Your task to perform on an android device: install app "Pluto TV - Live TV and Movies" Image 0: 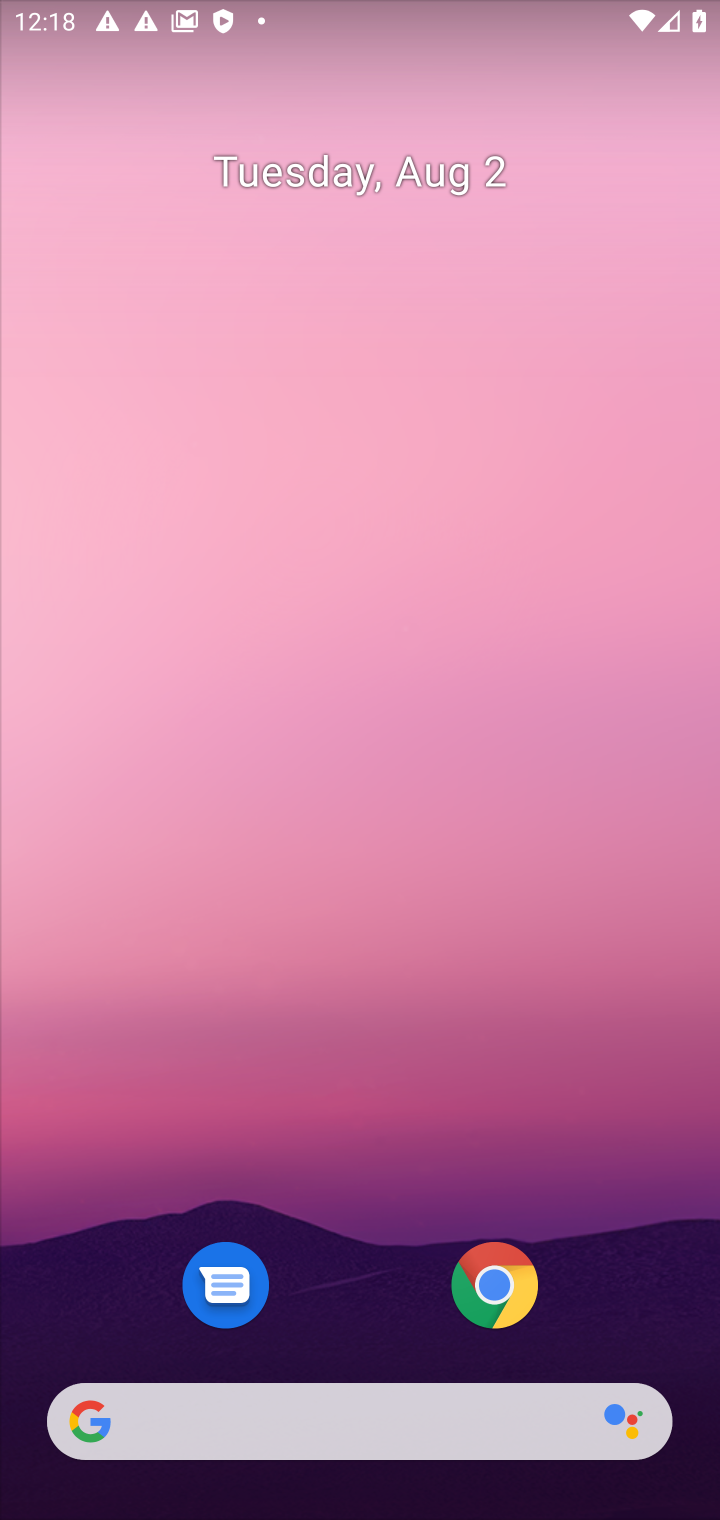
Step 0: drag from (612, 1224) to (628, 299)
Your task to perform on an android device: install app "Pluto TV - Live TV and Movies" Image 1: 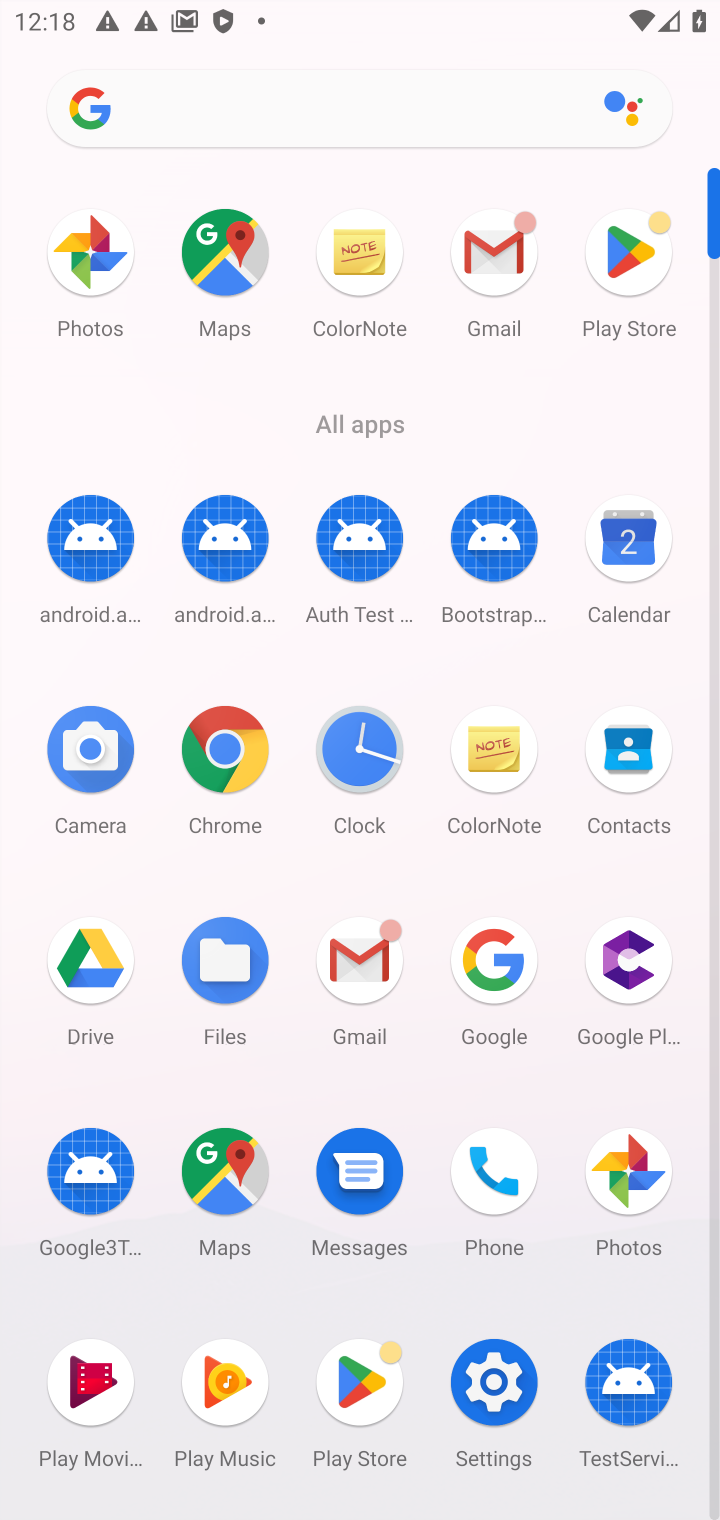
Step 1: click (353, 1385)
Your task to perform on an android device: install app "Pluto TV - Live TV and Movies" Image 2: 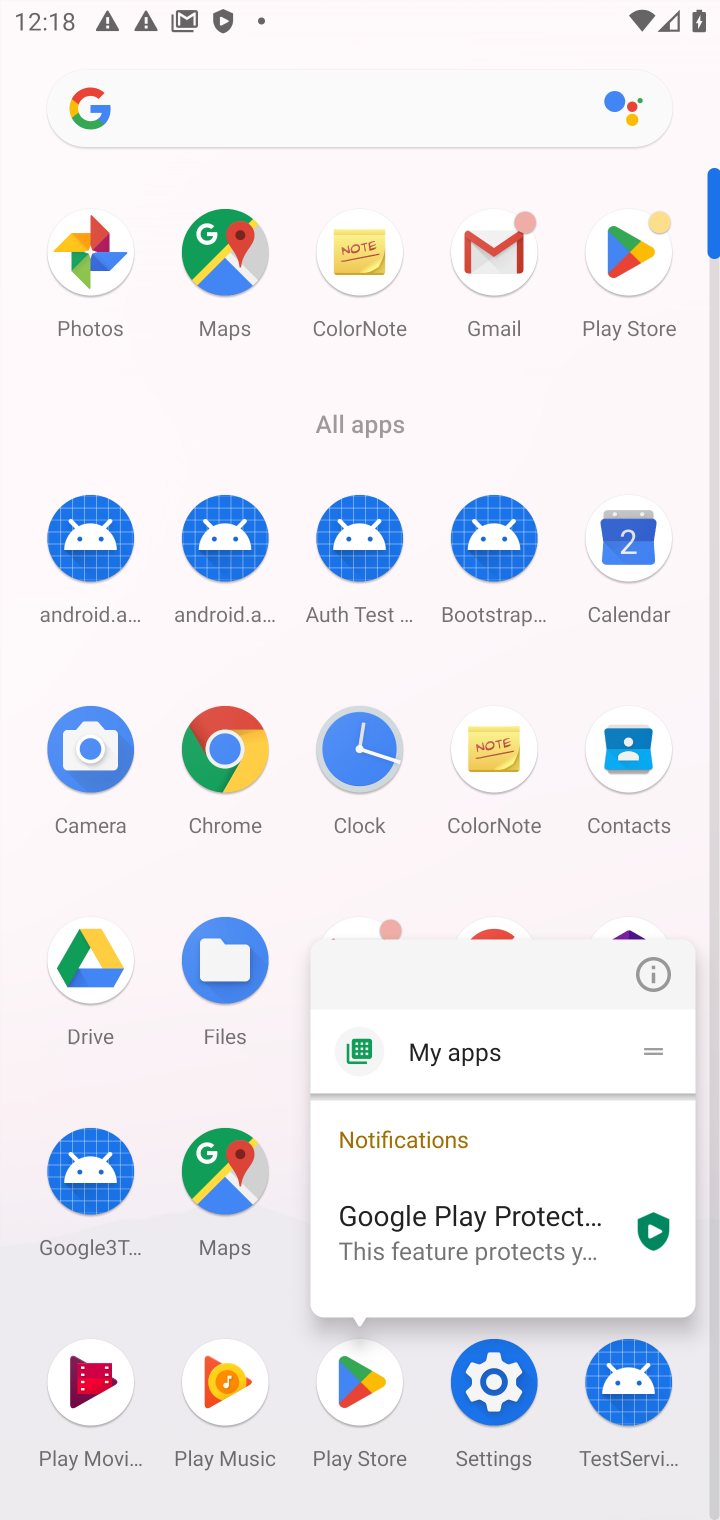
Step 2: click (351, 1377)
Your task to perform on an android device: install app "Pluto TV - Live TV and Movies" Image 3: 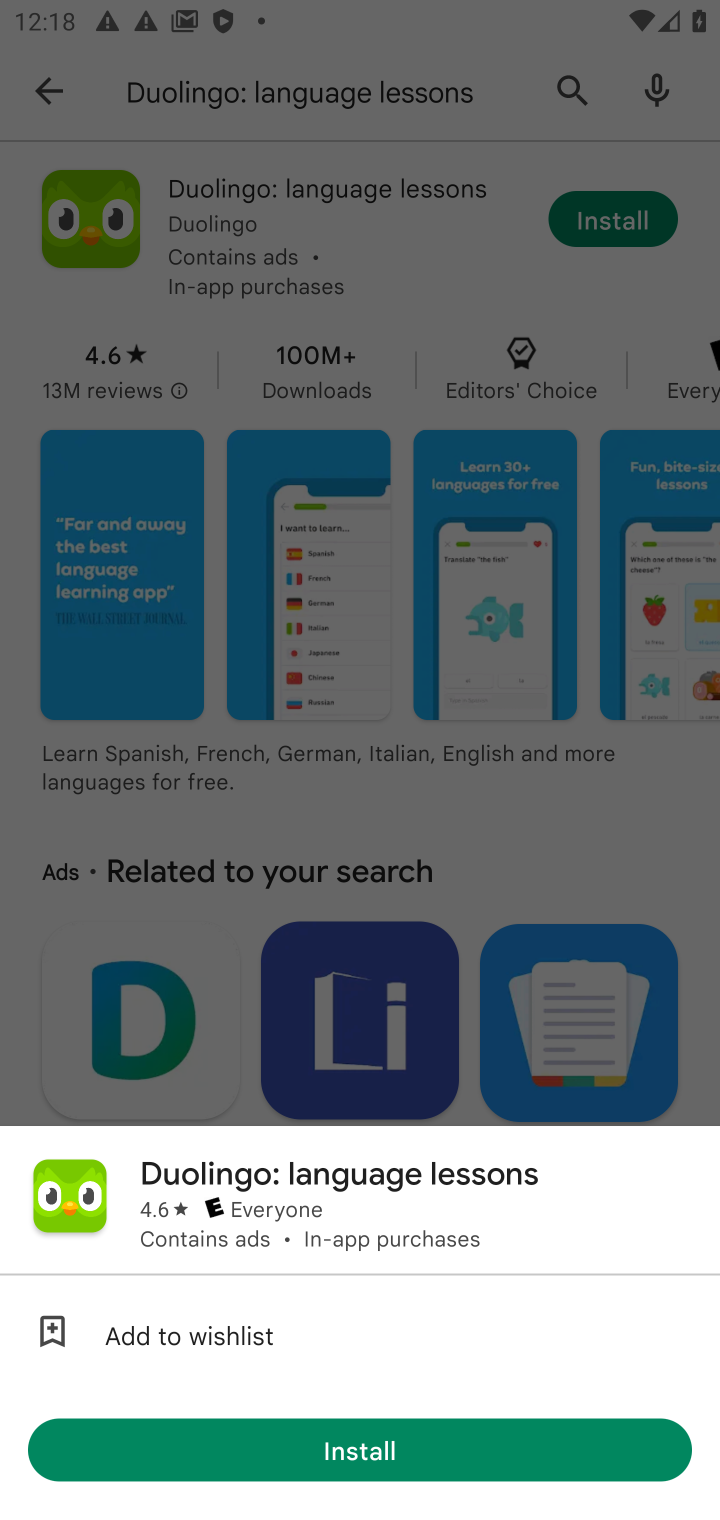
Step 3: click (382, 464)
Your task to perform on an android device: install app "Pluto TV - Live TV and Movies" Image 4: 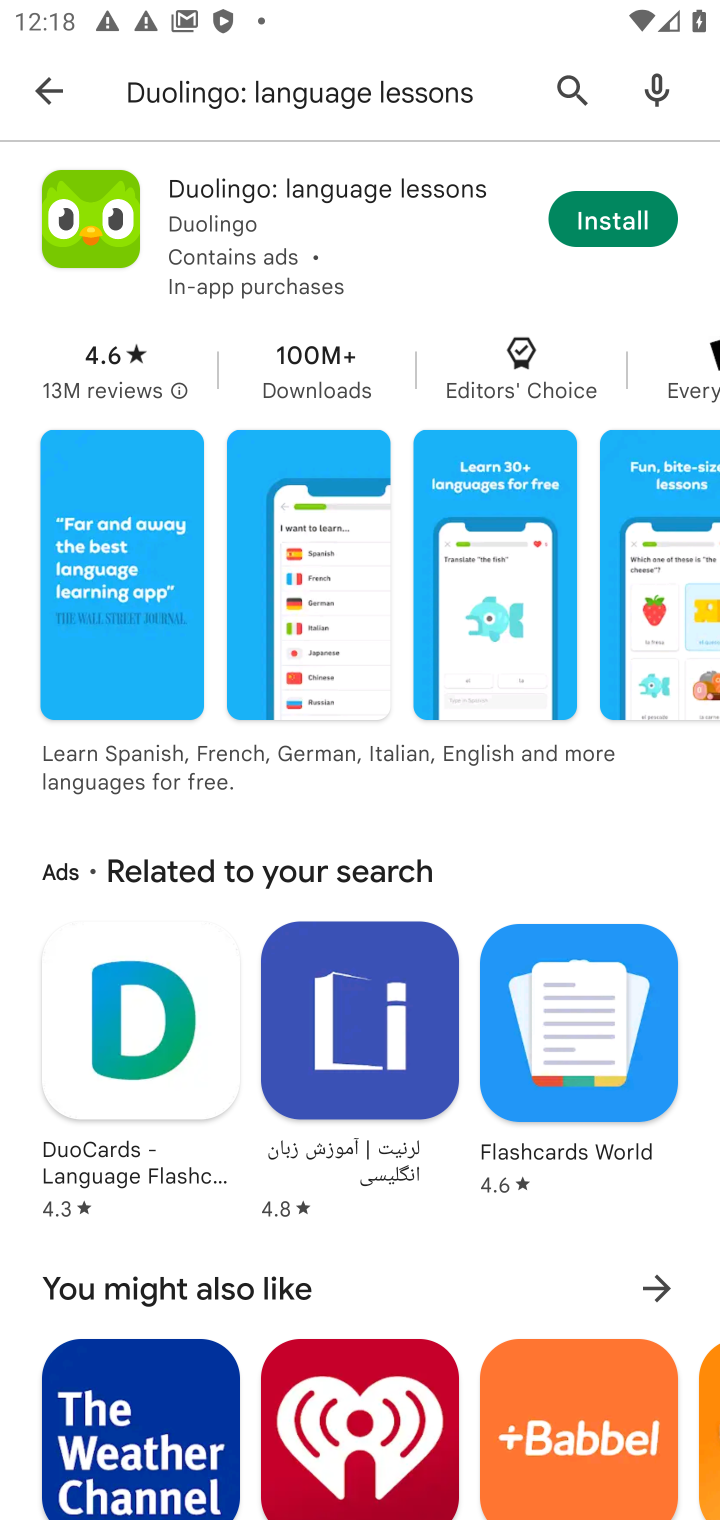
Step 4: click (401, 80)
Your task to perform on an android device: install app "Pluto TV - Live TV and Movies" Image 5: 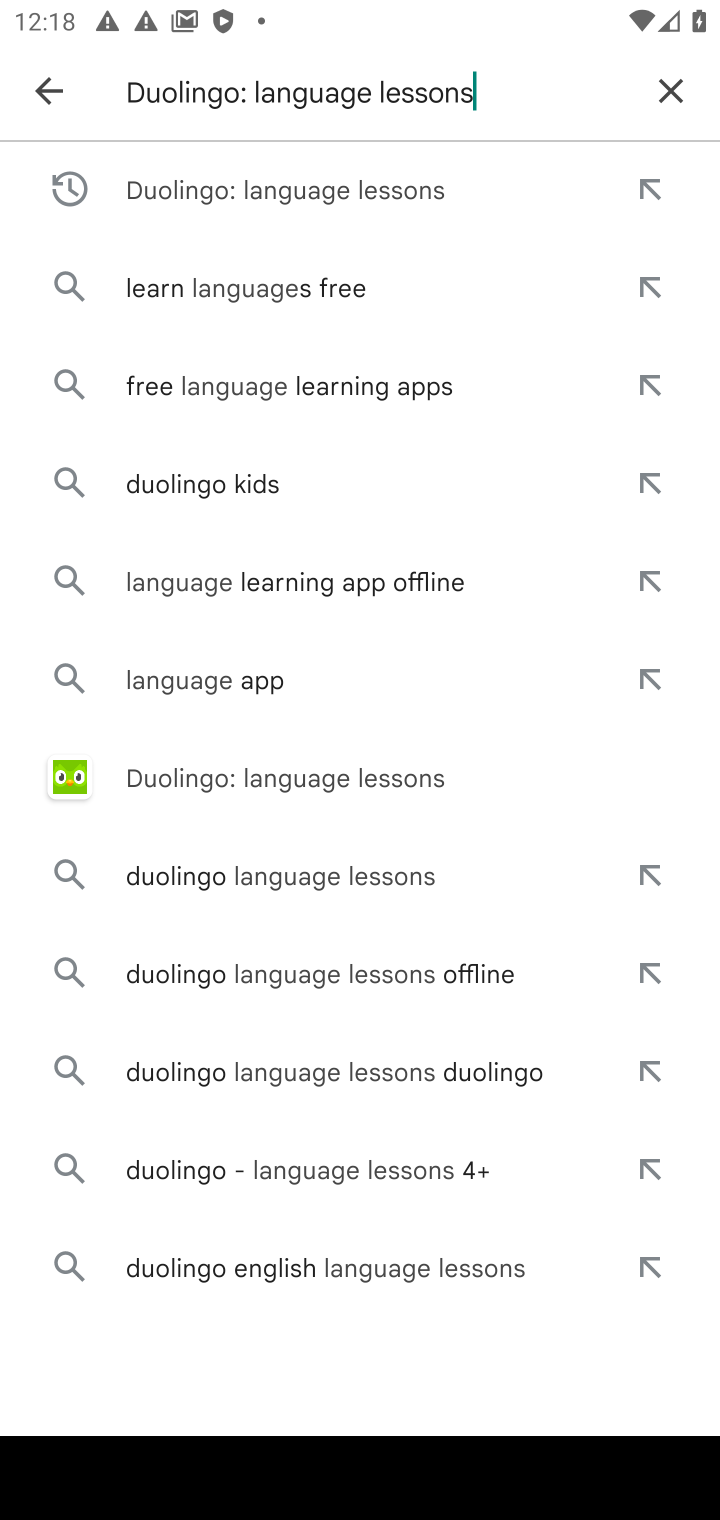
Step 5: click (679, 93)
Your task to perform on an android device: install app "Pluto TV - Live TV and Movies" Image 6: 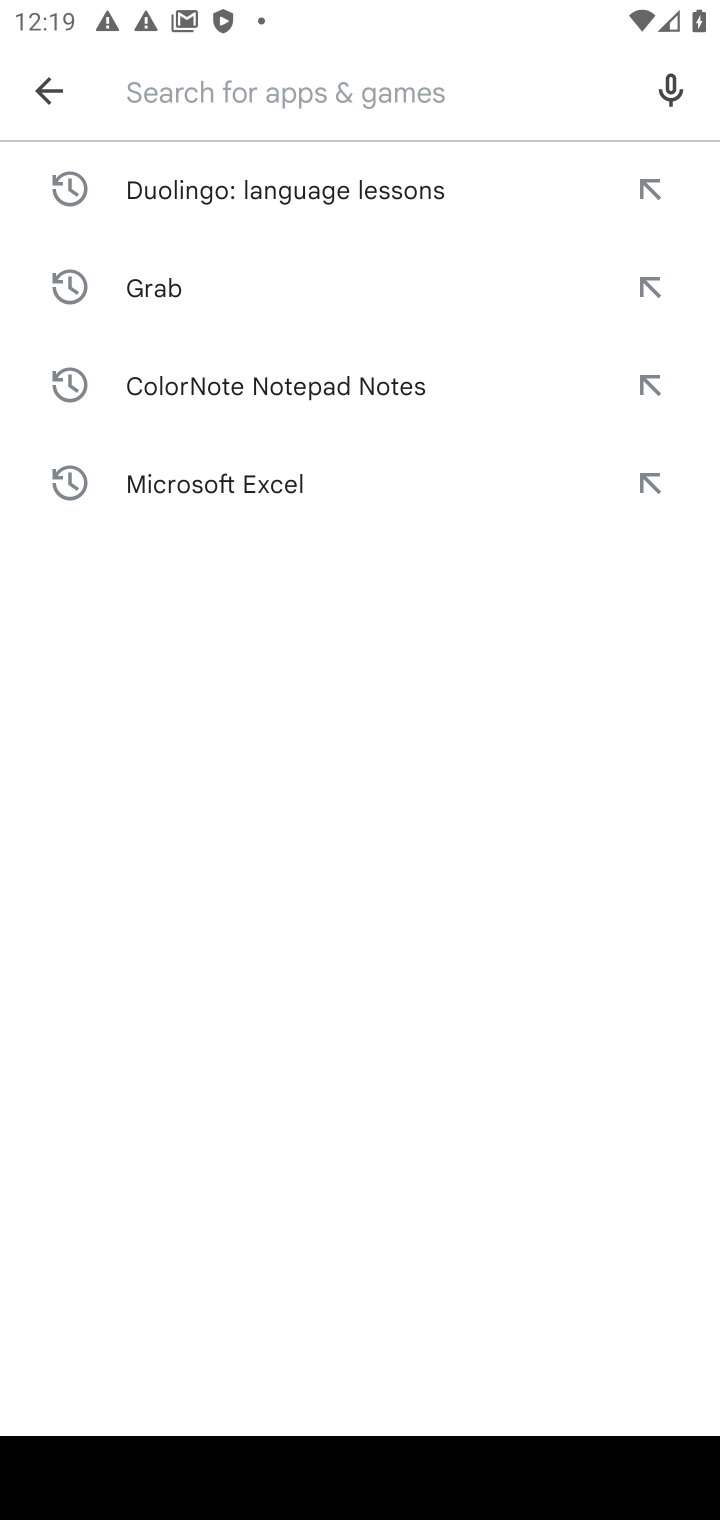
Step 6: type "Pluto TV - Live TV and Movies"
Your task to perform on an android device: install app "Pluto TV - Live TV and Movies" Image 7: 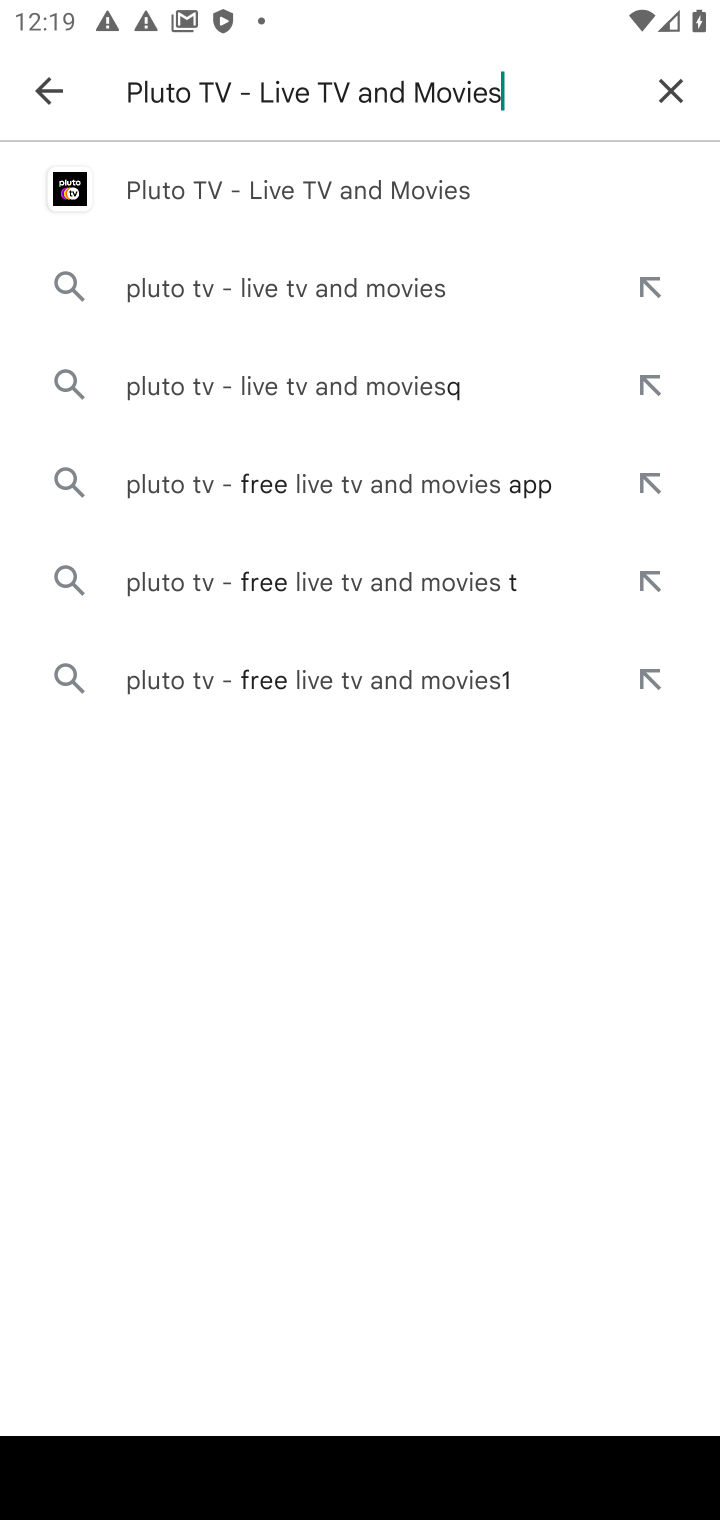
Step 7: press enter
Your task to perform on an android device: install app "Pluto TV - Live TV and Movies" Image 8: 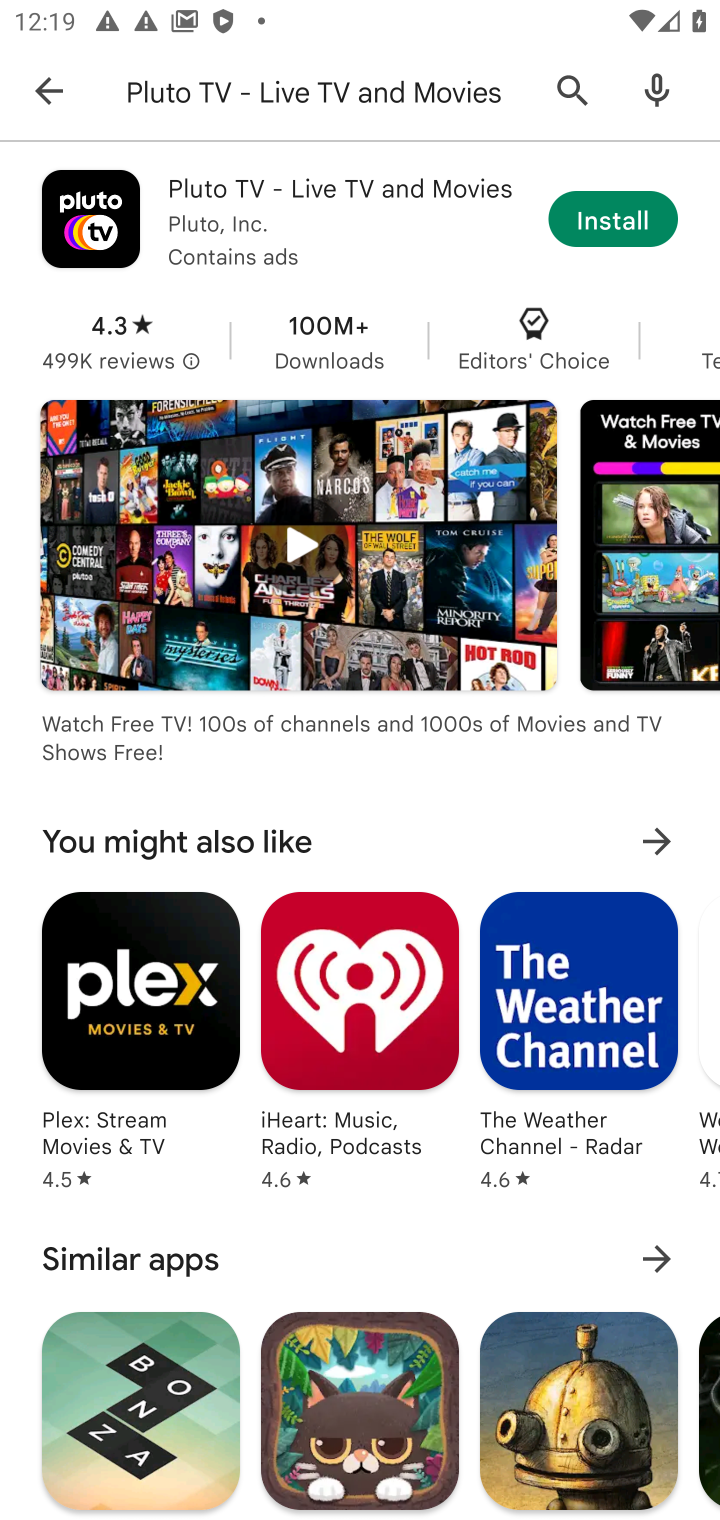
Step 8: click (612, 210)
Your task to perform on an android device: install app "Pluto TV - Live TV and Movies" Image 9: 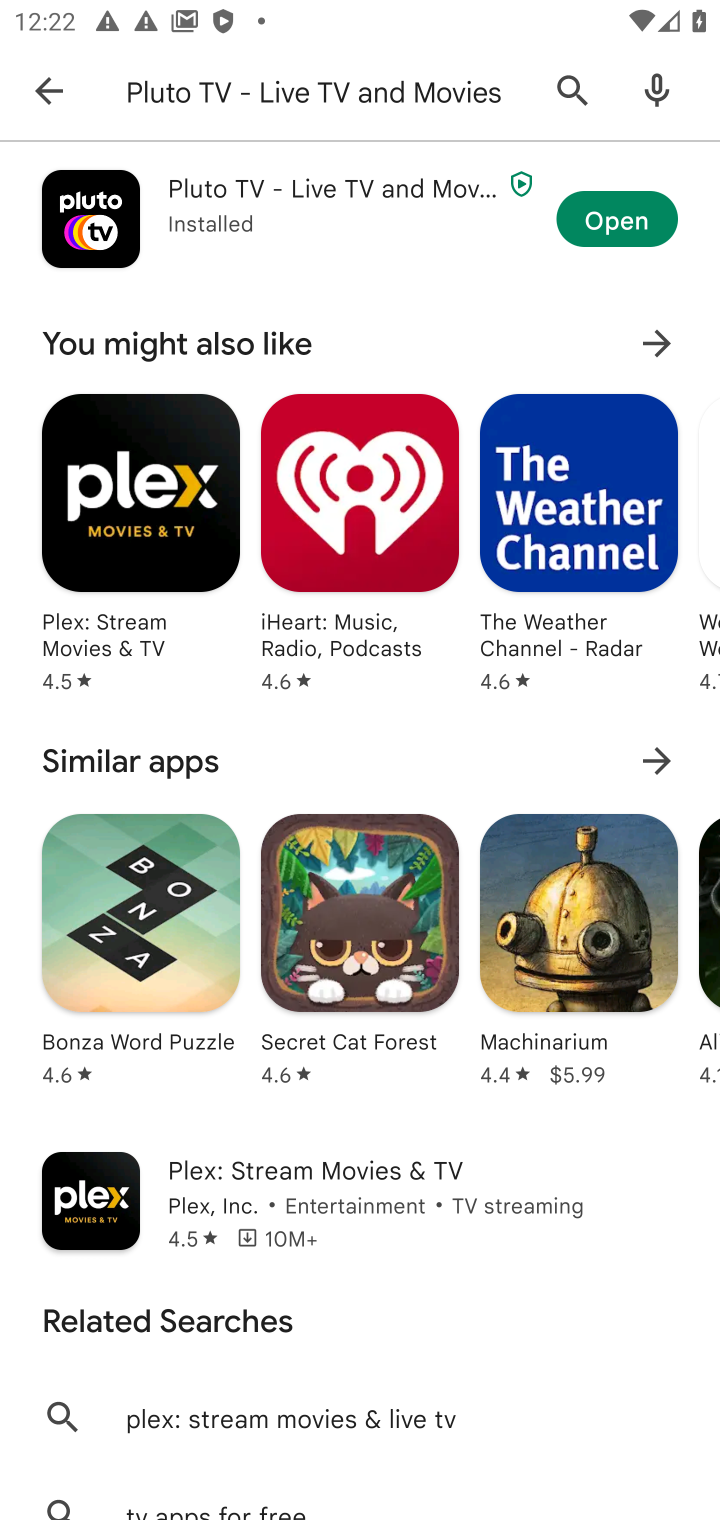
Step 9: task complete